Your task to perform on an android device: Go to Yahoo.com Image 0: 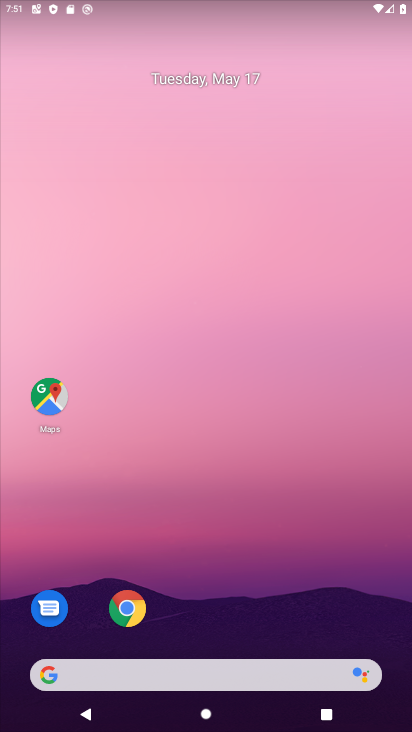
Step 0: click (142, 607)
Your task to perform on an android device: Go to Yahoo.com Image 1: 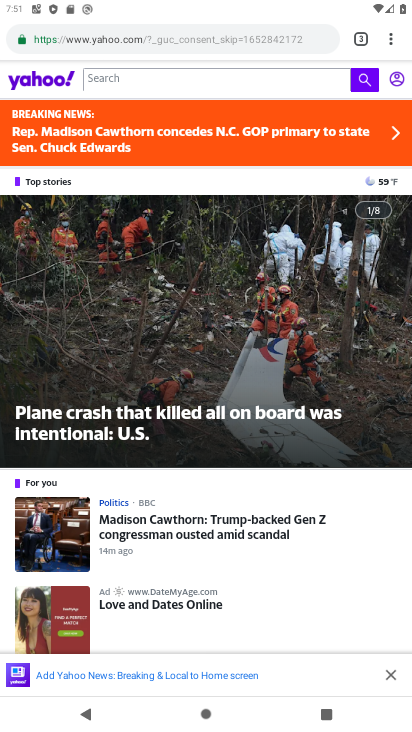
Step 1: task complete